Your task to perform on an android device: Is it going to rain this weekend? Image 0: 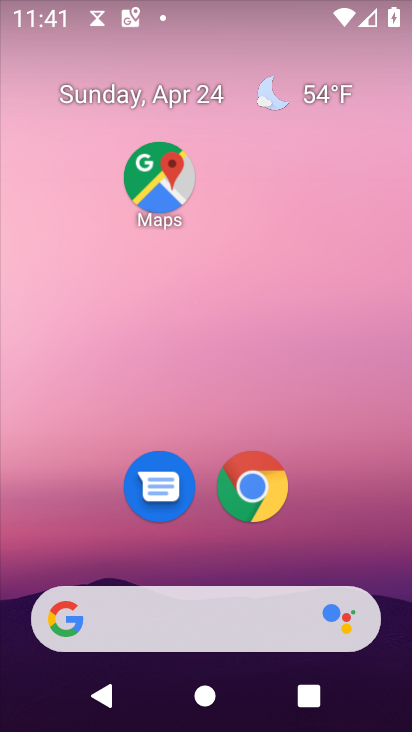
Step 0: click (312, 95)
Your task to perform on an android device: Is it going to rain this weekend? Image 1: 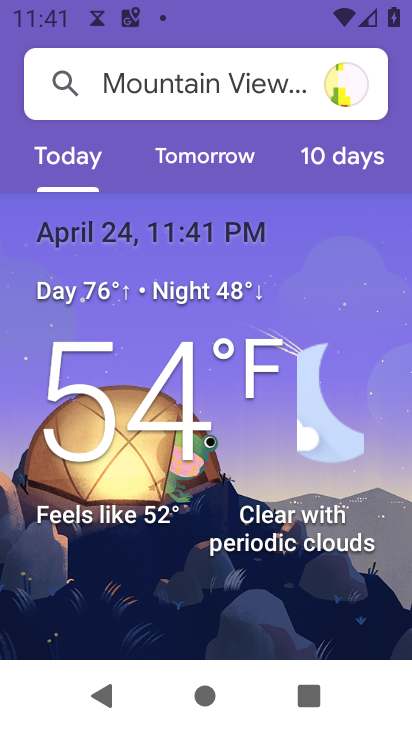
Step 1: click (359, 165)
Your task to perform on an android device: Is it going to rain this weekend? Image 2: 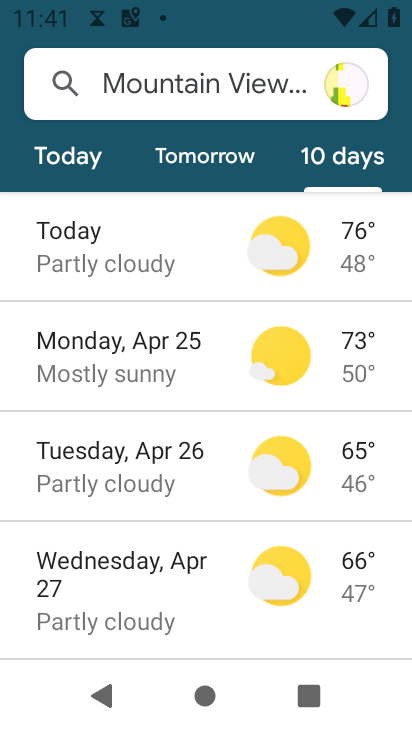
Step 2: task complete